Your task to perform on an android device: Open notification settings Image 0: 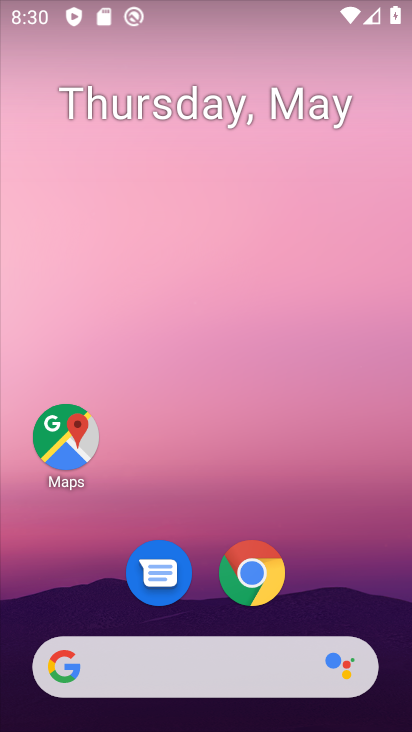
Step 0: drag from (333, 474) to (339, 216)
Your task to perform on an android device: Open notification settings Image 1: 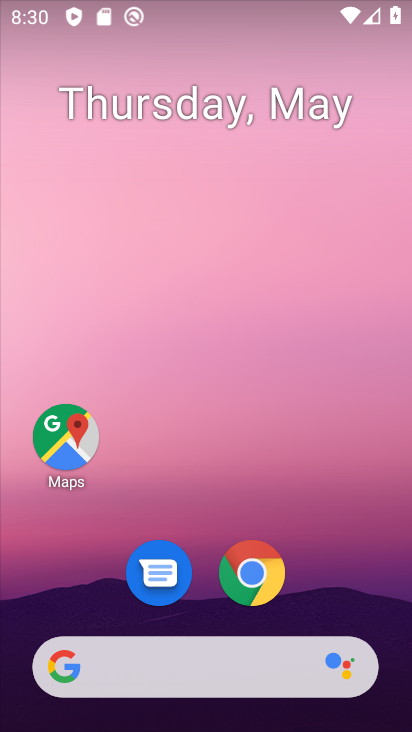
Step 1: drag from (340, 593) to (329, 158)
Your task to perform on an android device: Open notification settings Image 2: 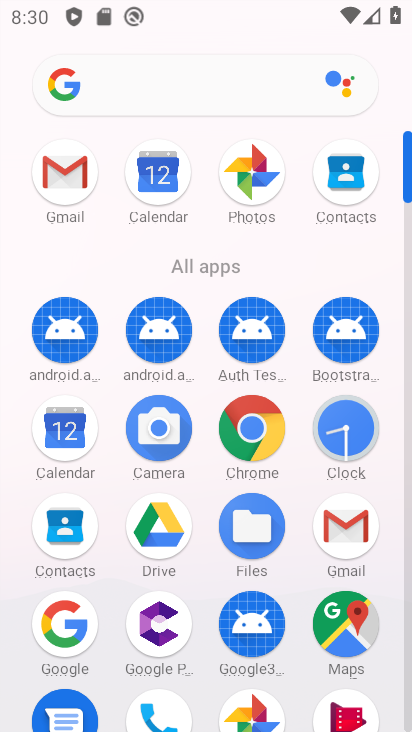
Step 2: drag from (304, 592) to (304, 236)
Your task to perform on an android device: Open notification settings Image 3: 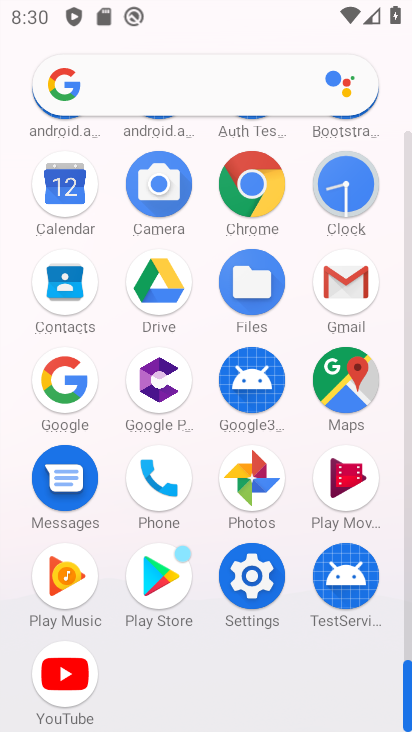
Step 3: click (263, 575)
Your task to perform on an android device: Open notification settings Image 4: 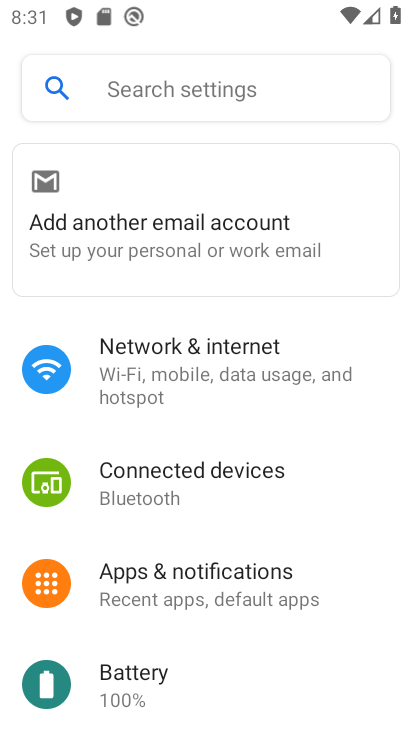
Step 4: click (235, 579)
Your task to perform on an android device: Open notification settings Image 5: 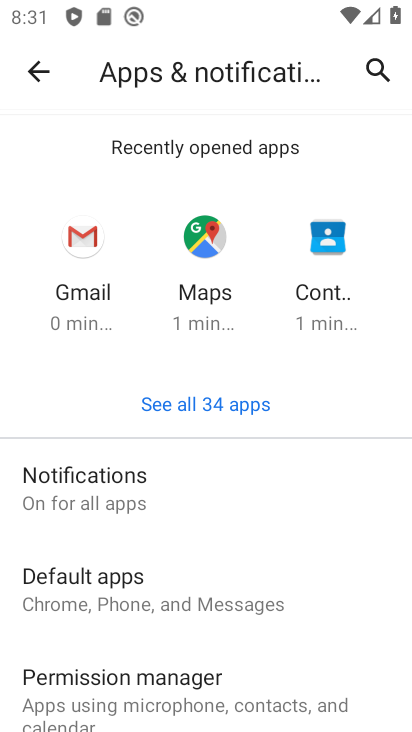
Step 5: click (156, 506)
Your task to perform on an android device: Open notification settings Image 6: 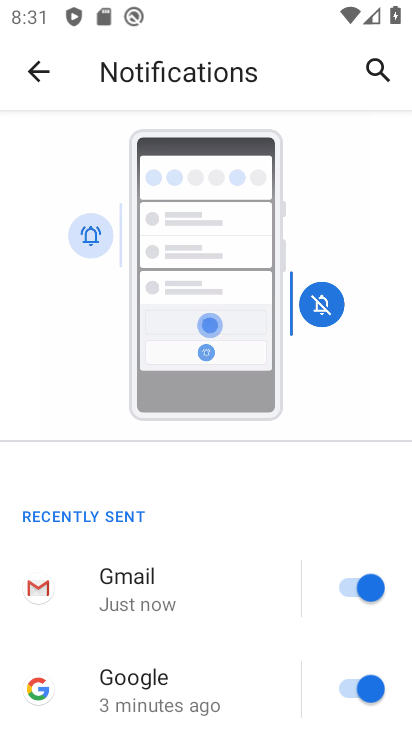
Step 6: task complete